Your task to perform on an android device: turn off location history Image 0: 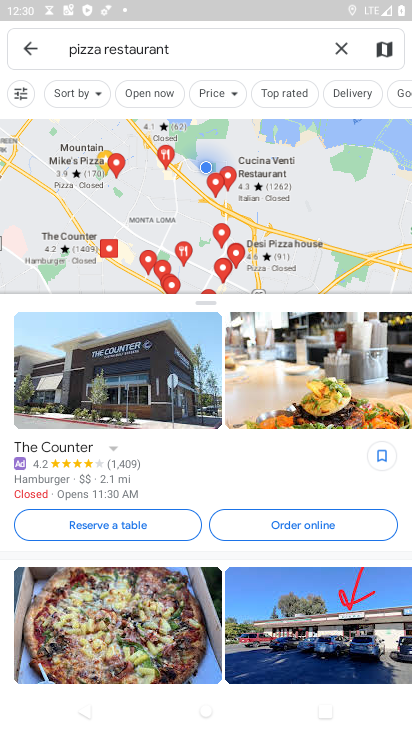
Step 0: click (23, 39)
Your task to perform on an android device: turn off location history Image 1: 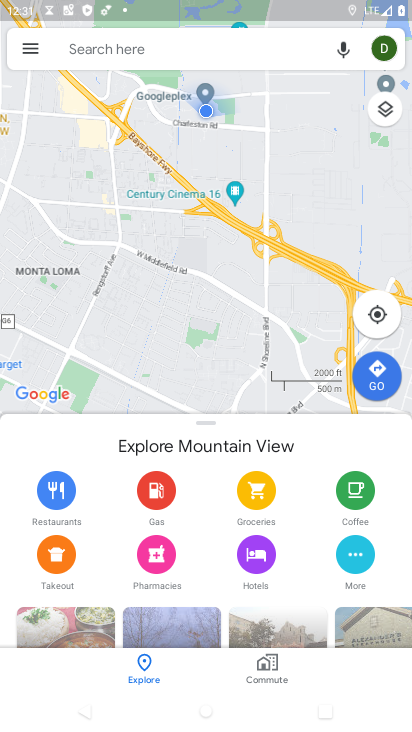
Step 1: click (28, 47)
Your task to perform on an android device: turn off location history Image 2: 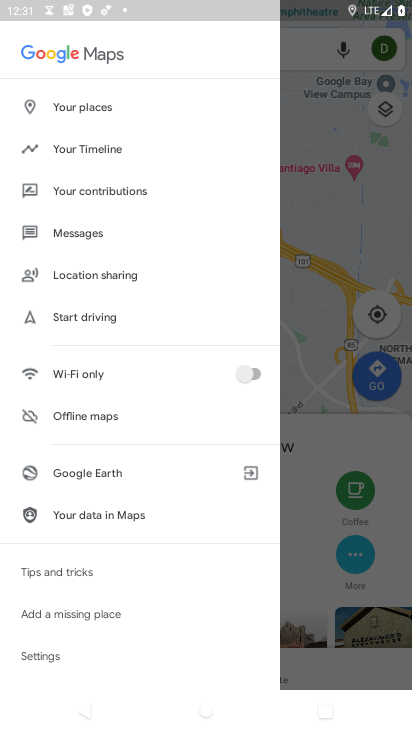
Step 2: click (39, 655)
Your task to perform on an android device: turn off location history Image 3: 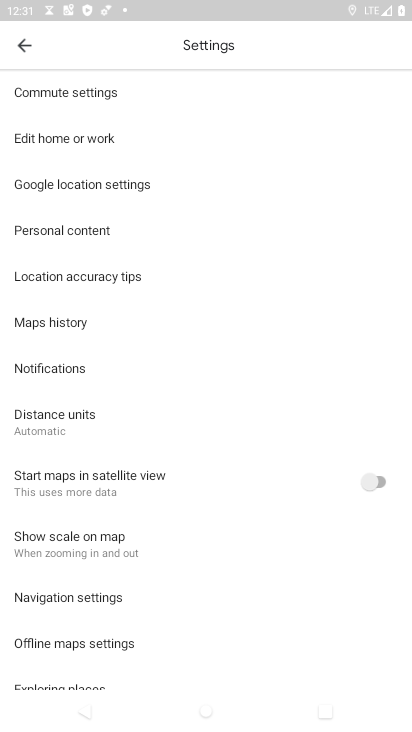
Step 3: drag from (170, 602) to (213, 134)
Your task to perform on an android device: turn off location history Image 4: 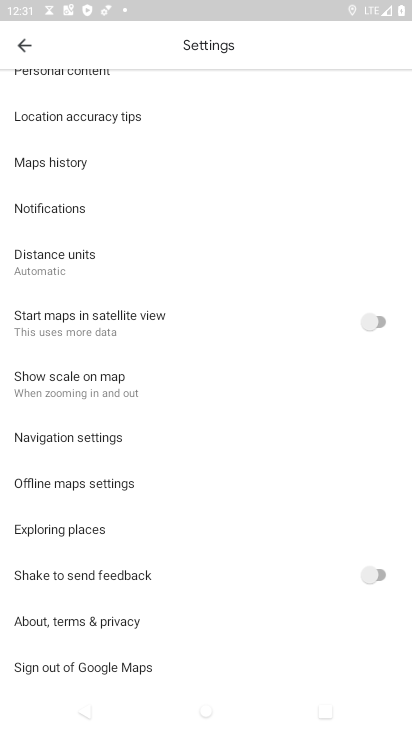
Step 4: drag from (178, 576) to (205, 261)
Your task to perform on an android device: turn off location history Image 5: 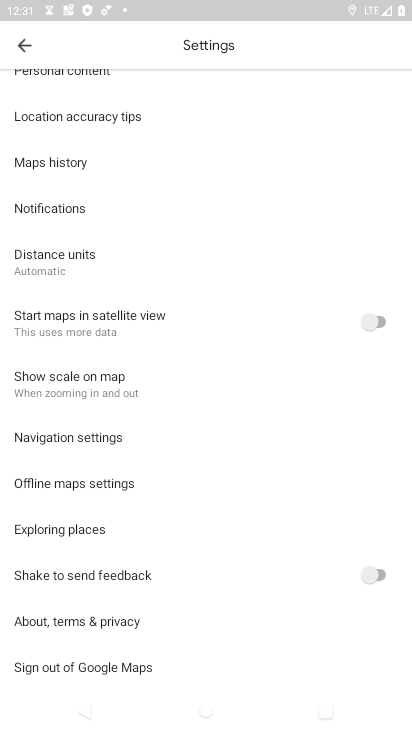
Step 5: drag from (179, 226) to (184, 680)
Your task to perform on an android device: turn off location history Image 6: 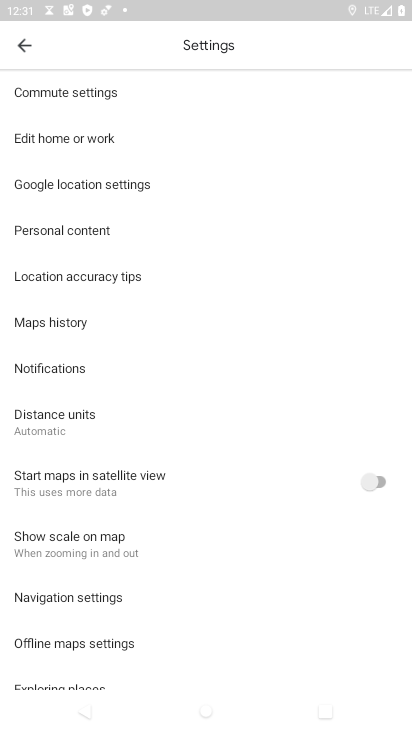
Step 6: click (119, 185)
Your task to perform on an android device: turn off location history Image 7: 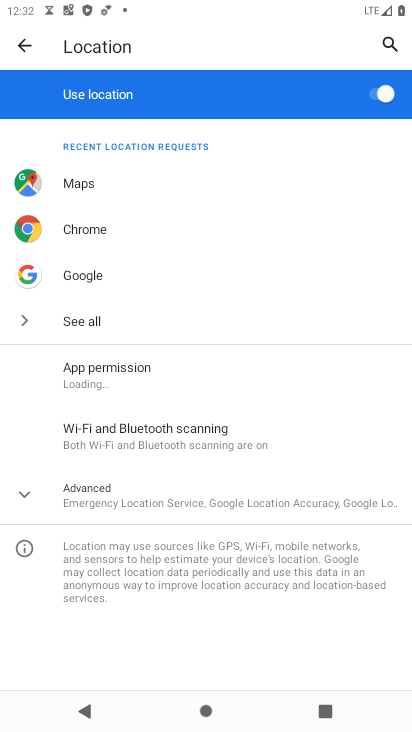
Step 7: click (175, 495)
Your task to perform on an android device: turn off location history Image 8: 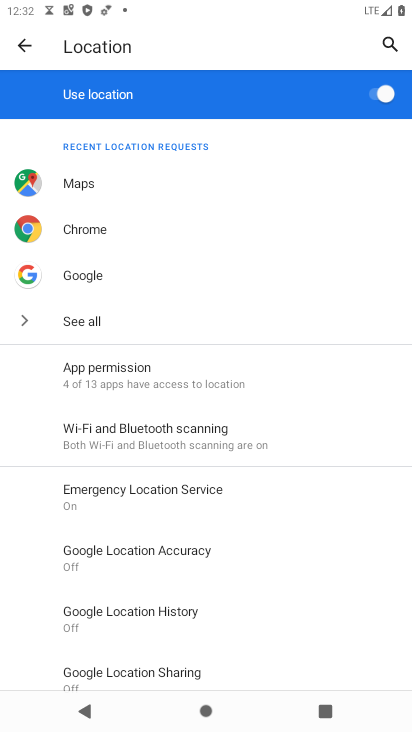
Step 8: drag from (285, 588) to (286, 334)
Your task to perform on an android device: turn off location history Image 9: 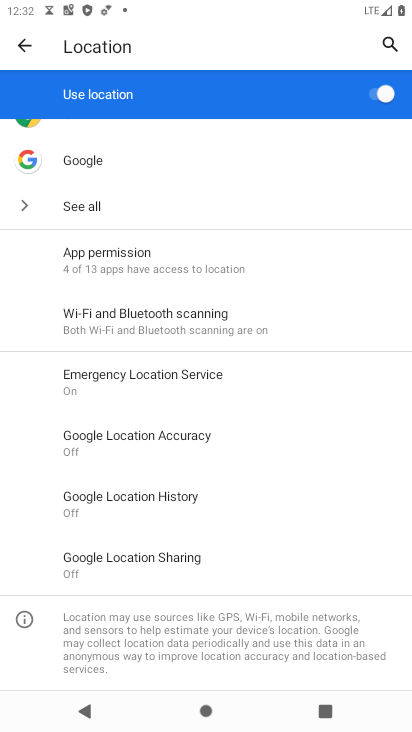
Step 9: click (180, 494)
Your task to perform on an android device: turn off location history Image 10: 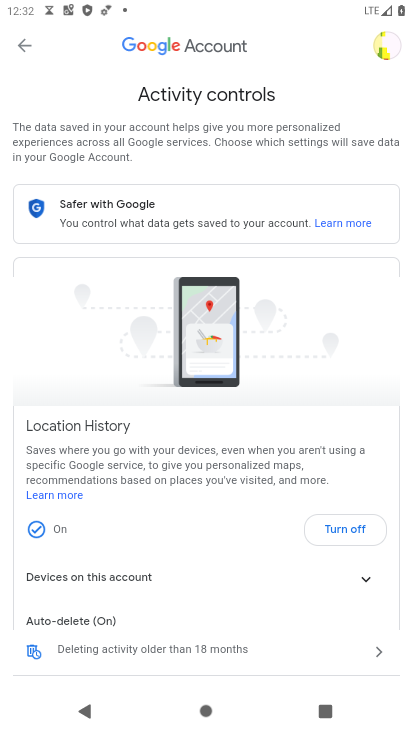
Step 10: task complete